Your task to perform on an android device: Go to CNN.com Image 0: 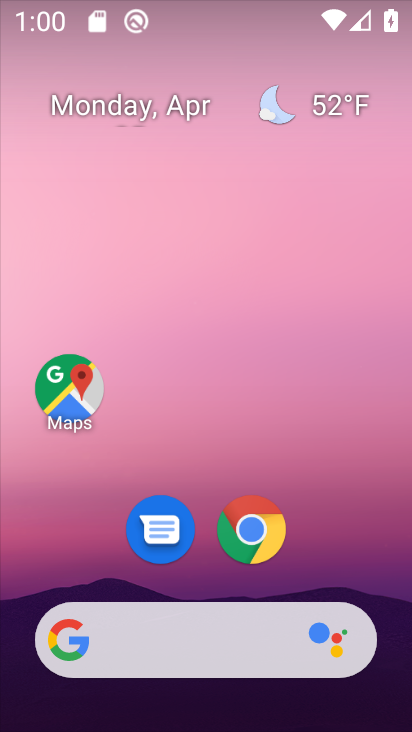
Step 0: click (239, 522)
Your task to perform on an android device: Go to CNN.com Image 1: 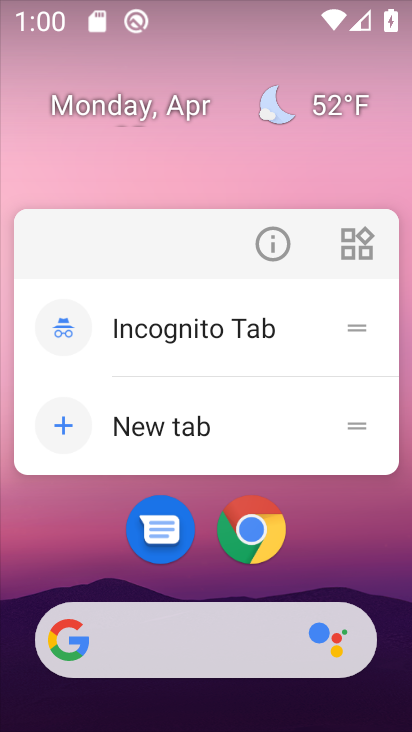
Step 1: click (239, 522)
Your task to perform on an android device: Go to CNN.com Image 2: 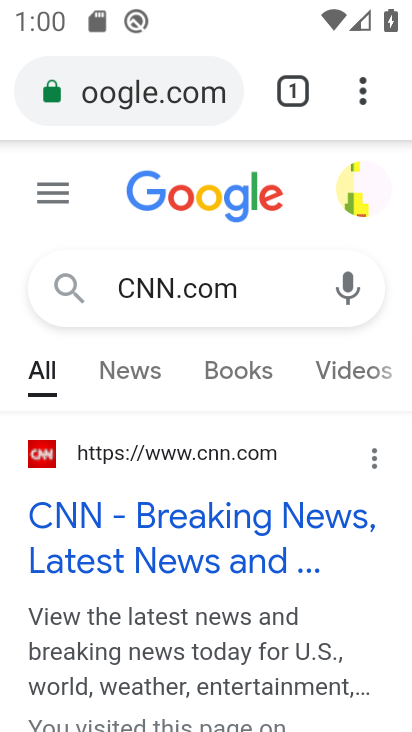
Step 2: task complete